Your task to perform on an android device: Open my contact list Image 0: 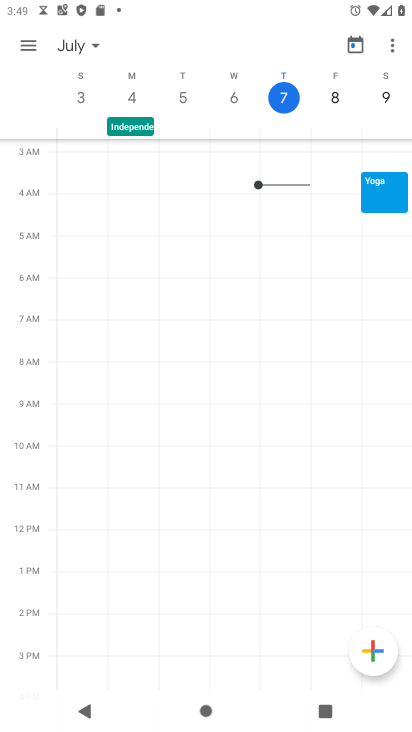
Step 0: press home button
Your task to perform on an android device: Open my contact list Image 1: 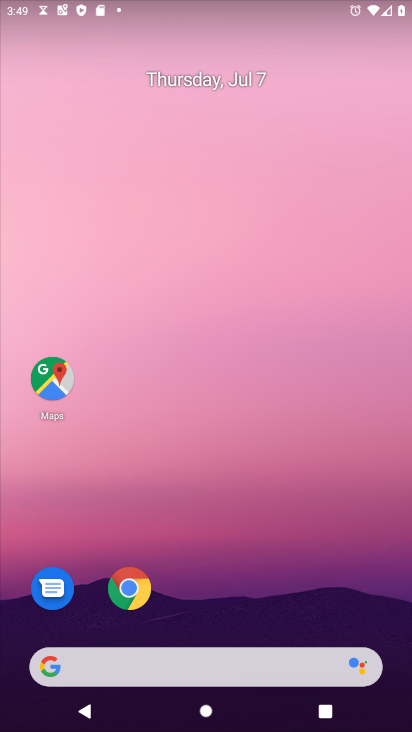
Step 1: drag from (223, 592) to (269, 99)
Your task to perform on an android device: Open my contact list Image 2: 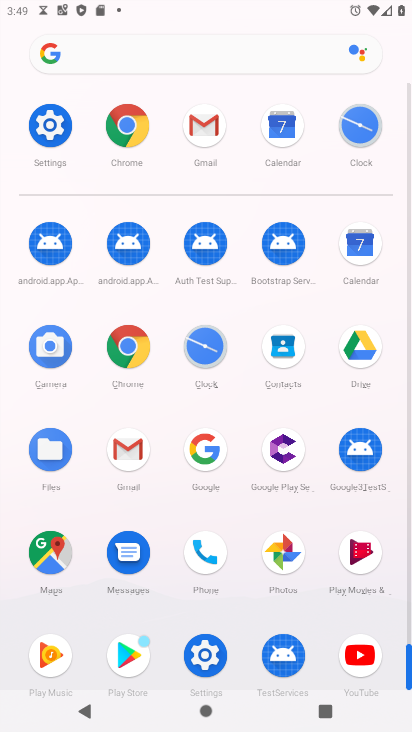
Step 2: click (284, 347)
Your task to perform on an android device: Open my contact list Image 3: 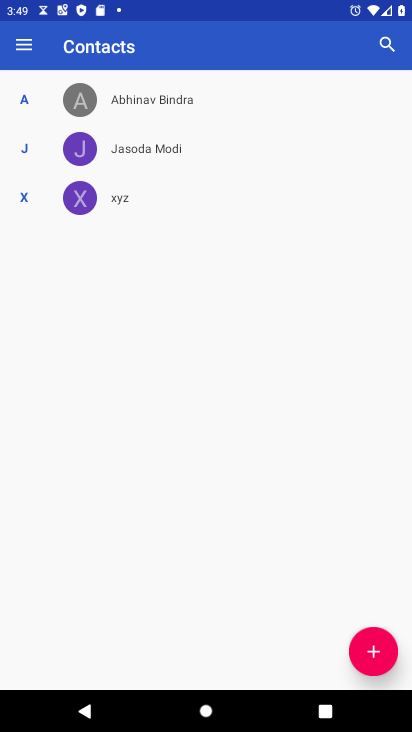
Step 3: task complete